Your task to perform on an android device: turn off improve location accuracy Image 0: 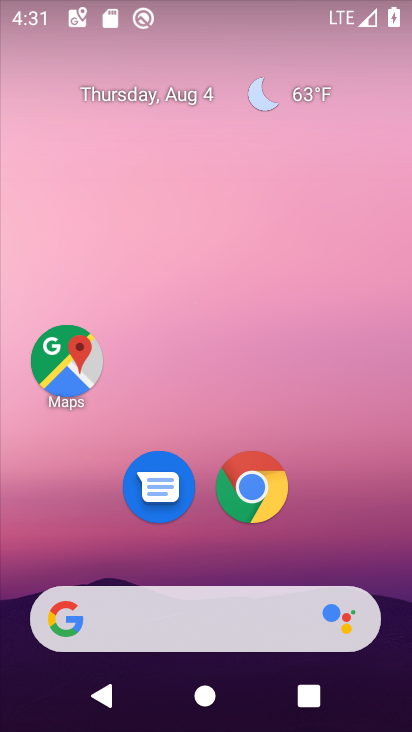
Step 0: drag from (165, 534) to (220, 54)
Your task to perform on an android device: turn off improve location accuracy Image 1: 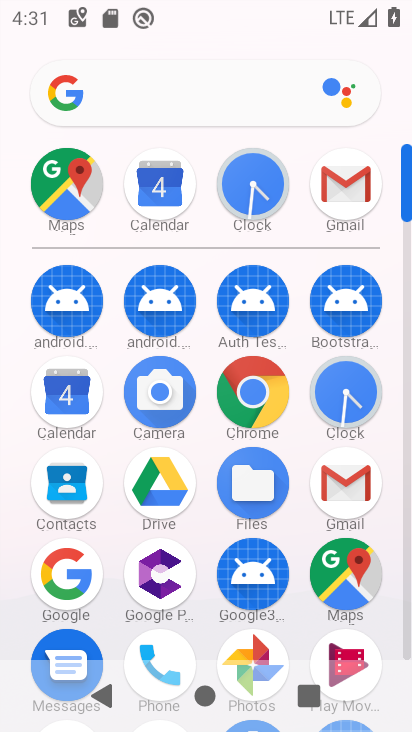
Step 1: drag from (203, 579) to (296, 20)
Your task to perform on an android device: turn off improve location accuracy Image 2: 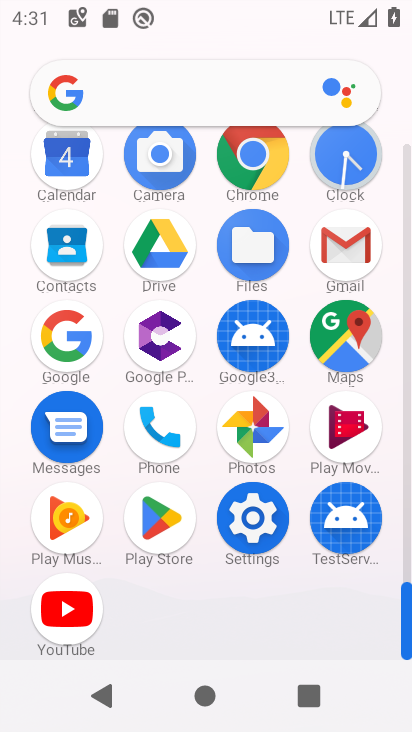
Step 2: click (272, 524)
Your task to perform on an android device: turn off improve location accuracy Image 3: 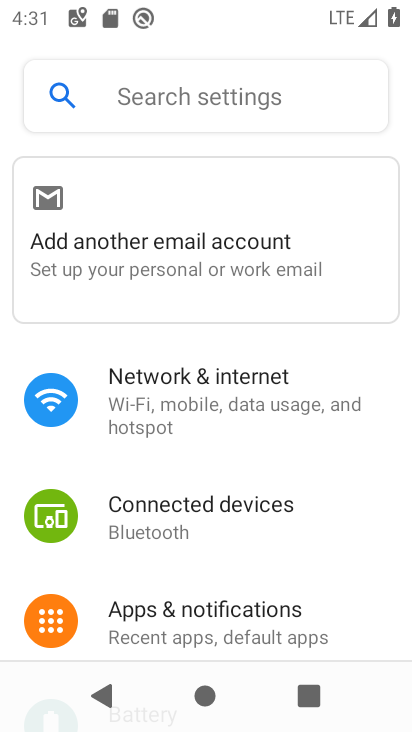
Step 3: drag from (167, 631) to (243, 150)
Your task to perform on an android device: turn off improve location accuracy Image 4: 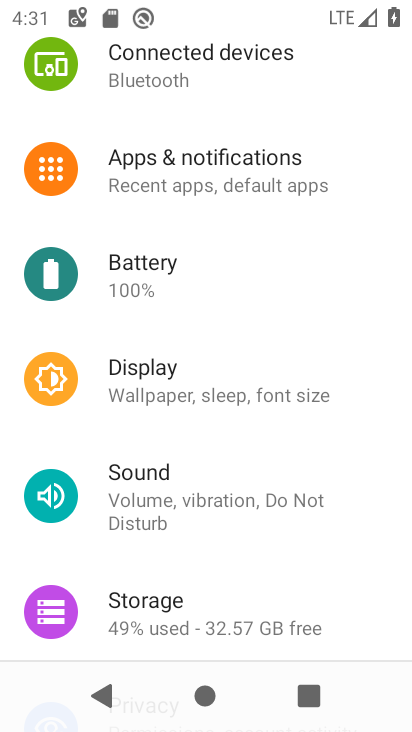
Step 4: drag from (172, 547) to (270, 31)
Your task to perform on an android device: turn off improve location accuracy Image 5: 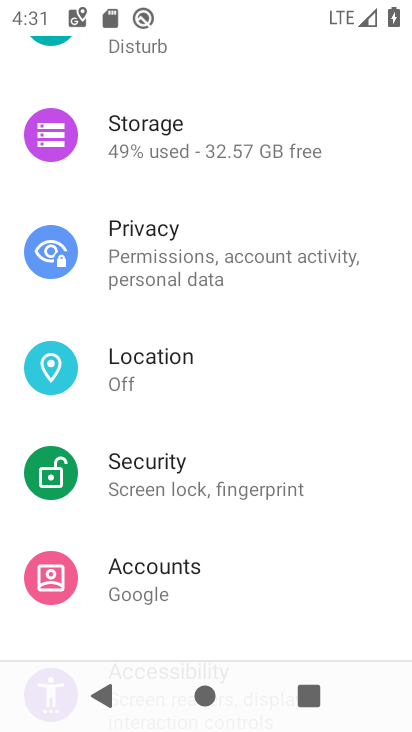
Step 5: click (127, 361)
Your task to perform on an android device: turn off improve location accuracy Image 6: 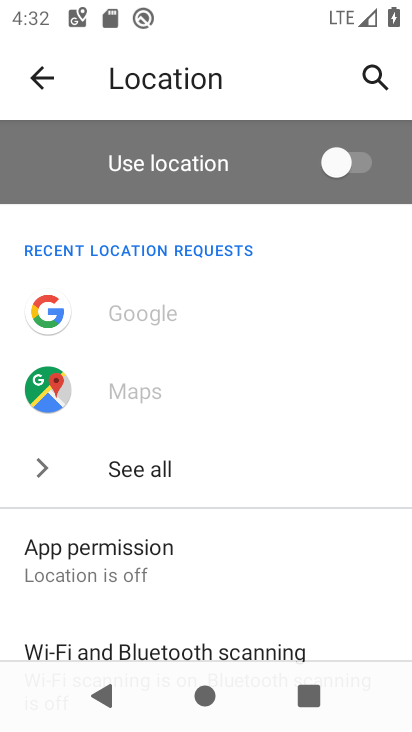
Step 6: drag from (123, 553) to (190, 72)
Your task to perform on an android device: turn off improve location accuracy Image 7: 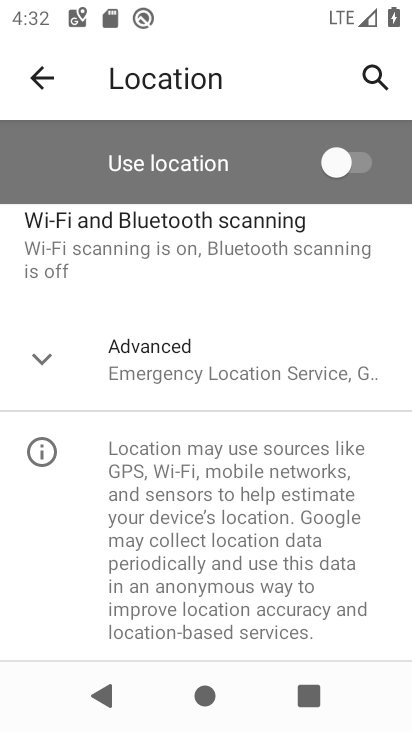
Step 7: click (135, 356)
Your task to perform on an android device: turn off improve location accuracy Image 8: 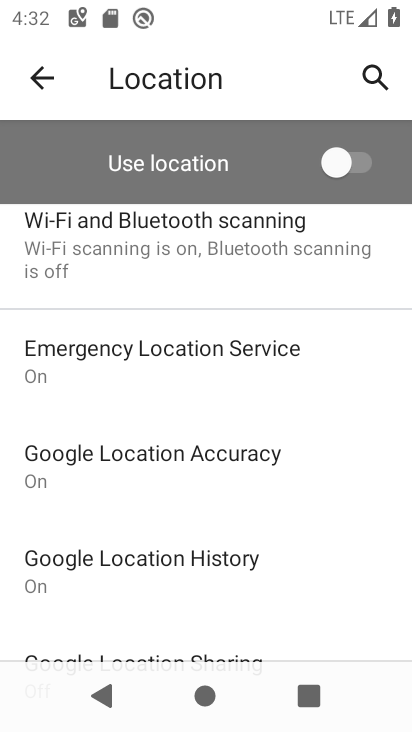
Step 8: click (127, 459)
Your task to perform on an android device: turn off improve location accuracy Image 9: 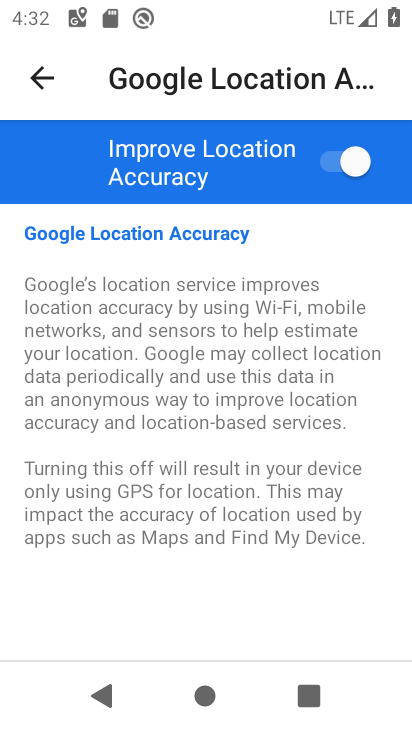
Step 9: click (337, 168)
Your task to perform on an android device: turn off improve location accuracy Image 10: 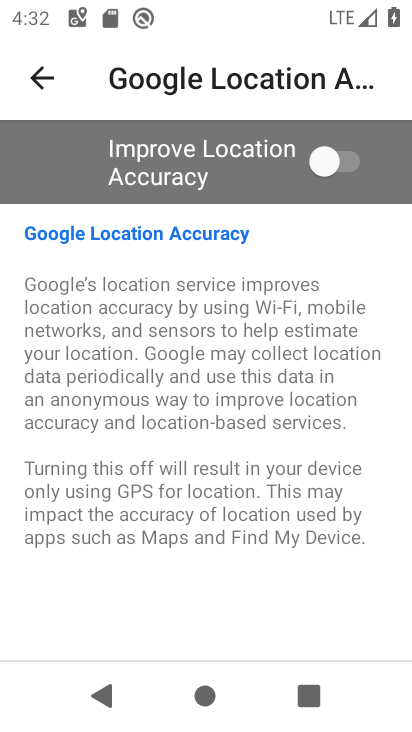
Step 10: task complete